Your task to perform on an android device: Search for Mexican restaurants on Maps Image 0: 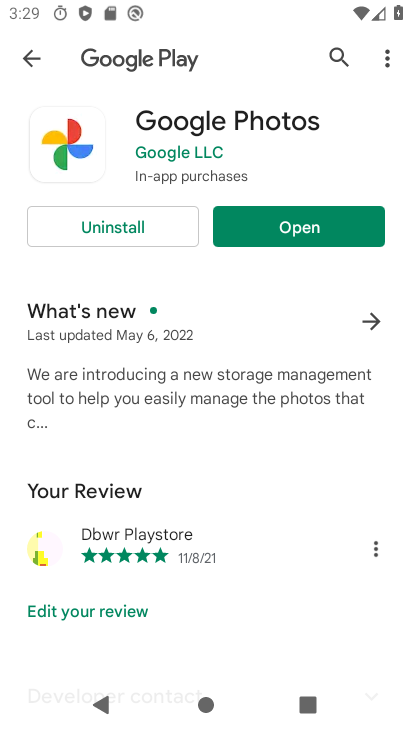
Step 0: press home button
Your task to perform on an android device: Search for Mexican restaurants on Maps Image 1: 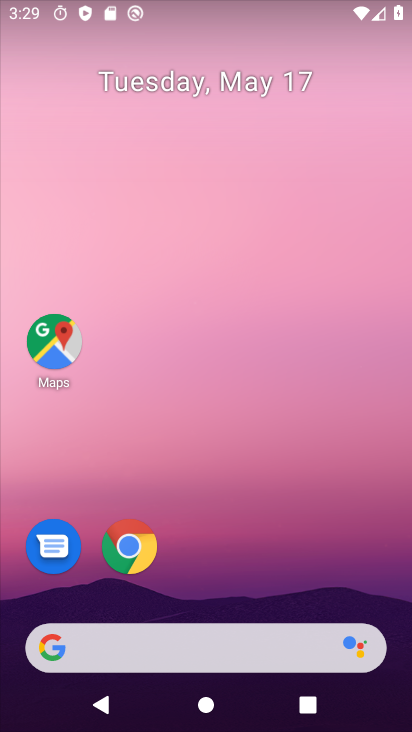
Step 1: drag from (252, 564) to (275, 227)
Your task to perform on an android device: Search for Mexican restaurants on Maps Image 2: 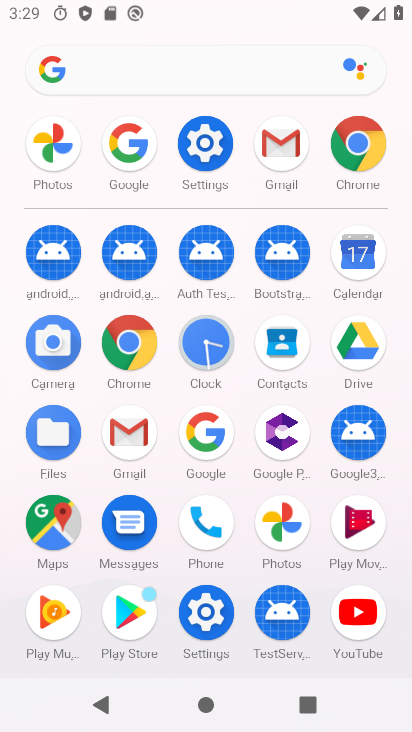
Step 2: click (38, 530)
Your task to perform on an android device: Search for Mexican restaurants on Maps Image 3: 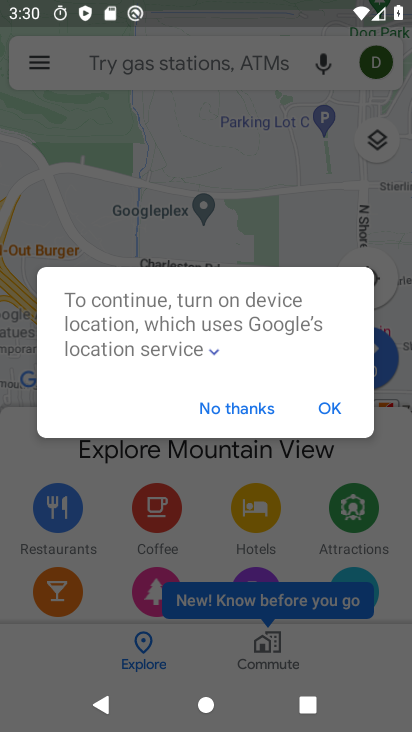
Step 3: click (317, 409)
Your task to perform on an android device: Search for Mexican restaurants on Maps Image 4: 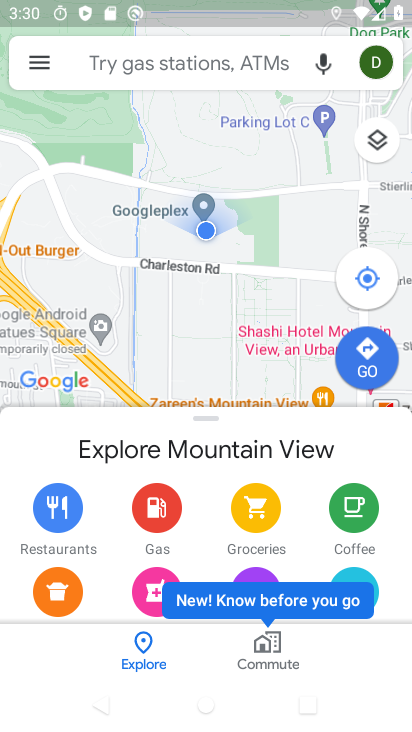
Step 4: click (253, 64)
Your task to perform on an android device: Search for Mexican restaurants on Maps Image 5: 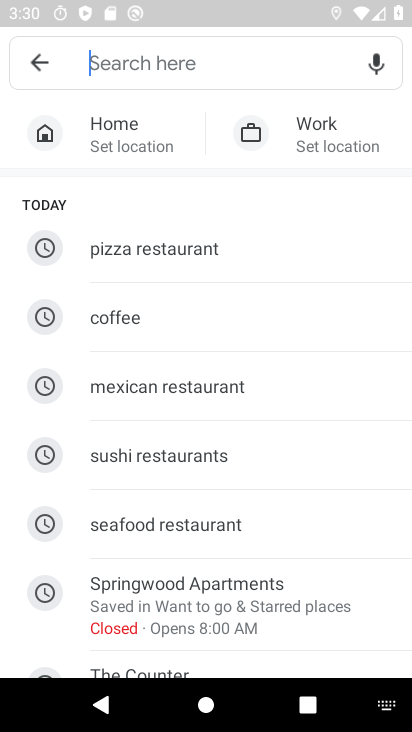
Step 5: click (124, 388)
Your task to perform on an android device: Search for Mexican restaurants on Maps Image 6: 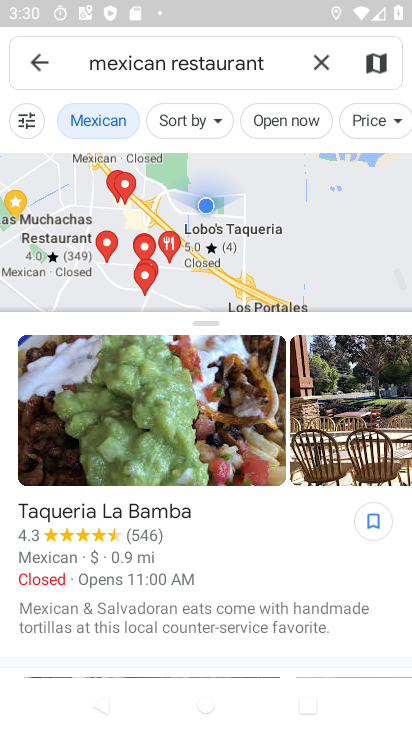
Step 6: task complete